Your task to perform on an android device: check android version Image 0: 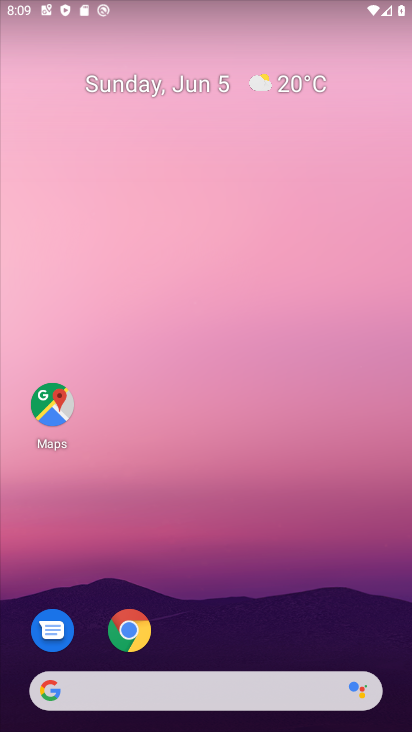
Step 0: drag from (270, 562) to (317, 77)
Your task to perform on an android device: check android version Image 1: 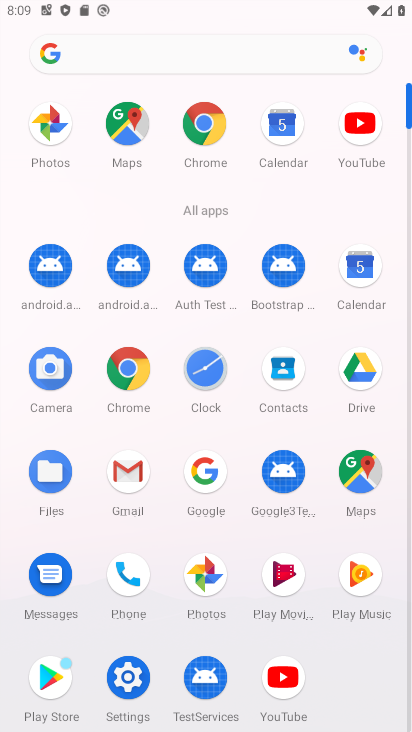
Step 1: drag from (178, 412) to (181, 209)
Your task to perform on an android device: check android version Image 2: 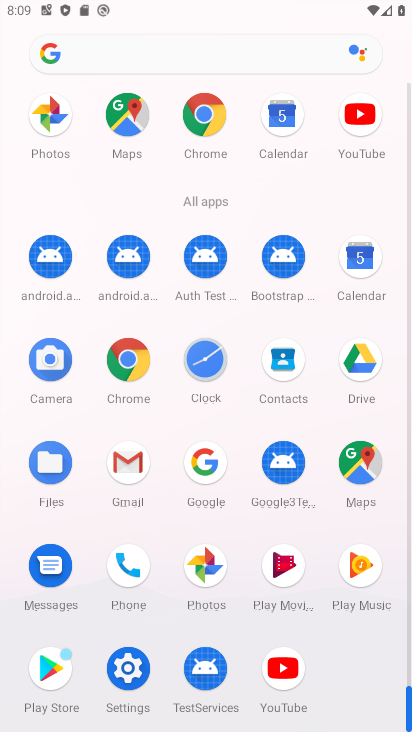
Step 2: click (129, 666)
Your task to perform on an android device: check android version Image 3: 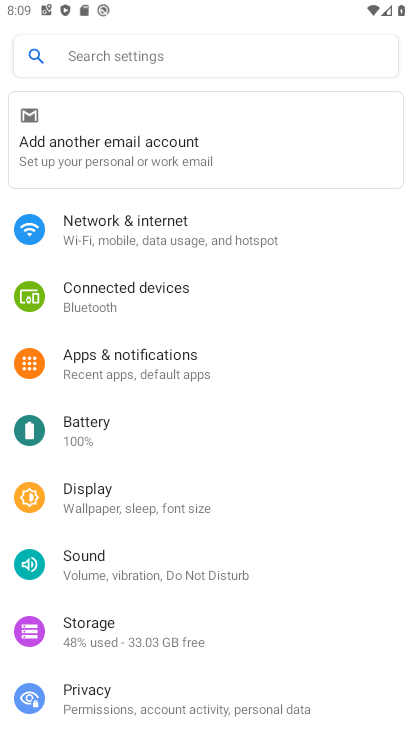
Step 3: drag from (161, 455) to (214, 343)
Your task to perform on an android device: check android version Image 4: 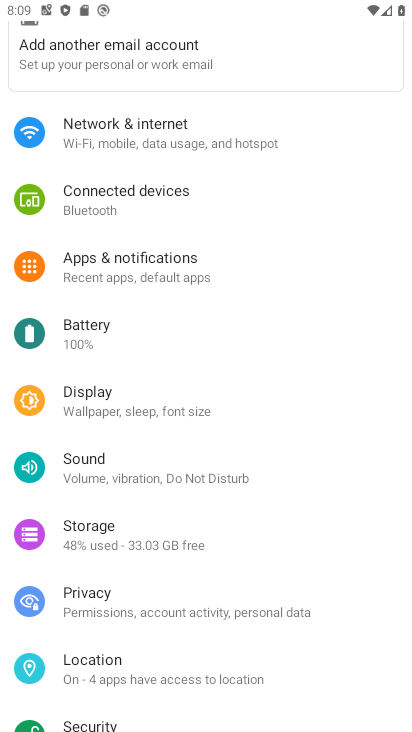
Step 4: drag from (153, 456) to (235, 345)
Your task to perform on an android device: check android version Image 5: 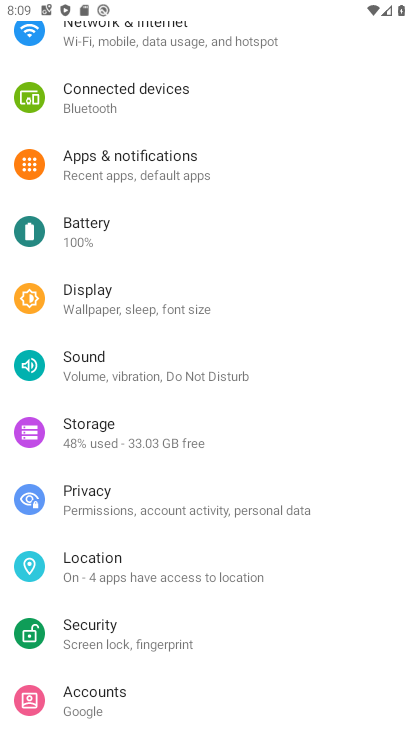
Step 5: drag from (151, 470) to (251, 359)
Your task to perform on an android device: check android version Image 6: 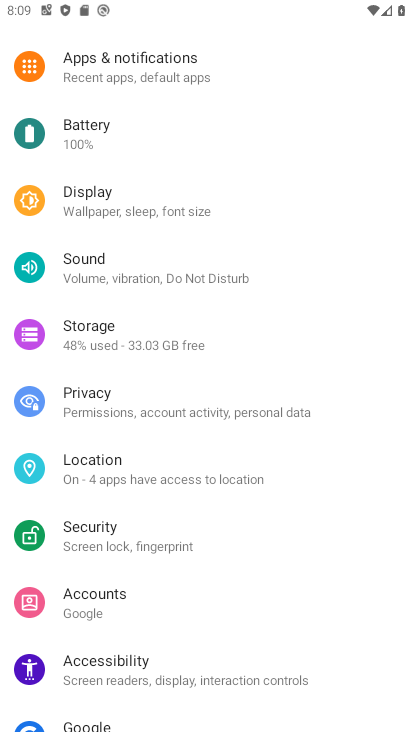
Step 6: drag from (133, 504) to (233, 390)
Your task to perform on an android device: check android version Image 7: 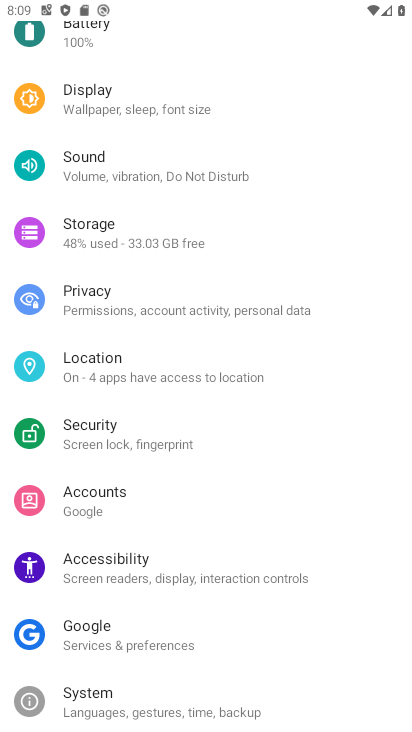
Step 7: drag from (161, 513) to (240, 417)
Your task to perform on an android device: check android version Image 8: 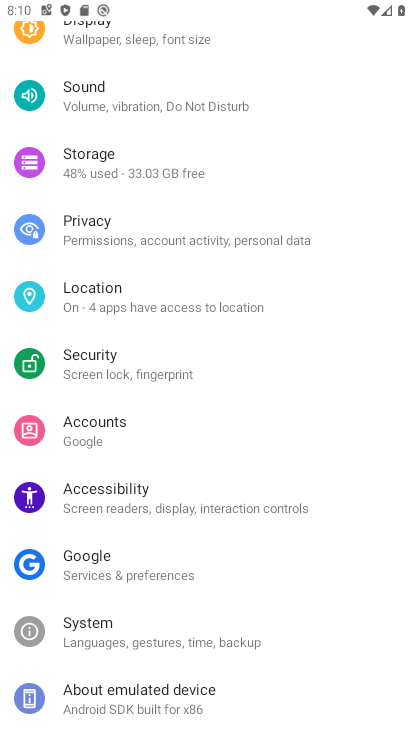
Step 8: click (122, 692)
Your task to perform on an android device: check android version Image 9: 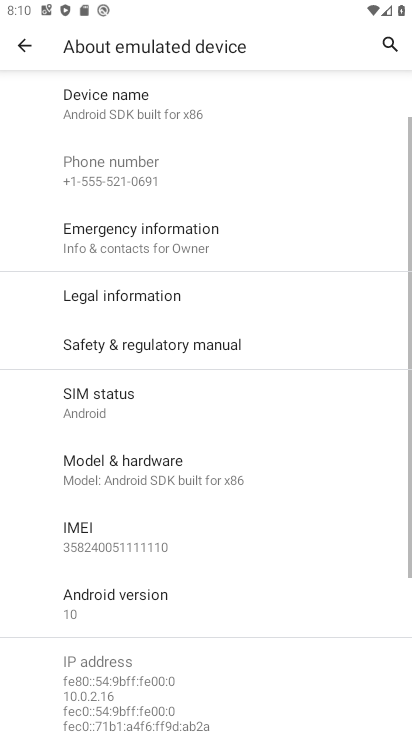
Step 9: click (132, 607)
Your task to perform on an android device: check android version Image 10: 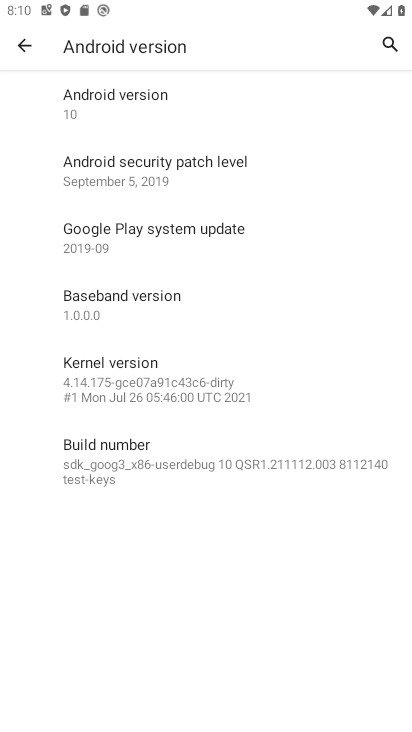
Step 10: task complete